Your task to perform on an android device: Go to accessibility settings Image 0: 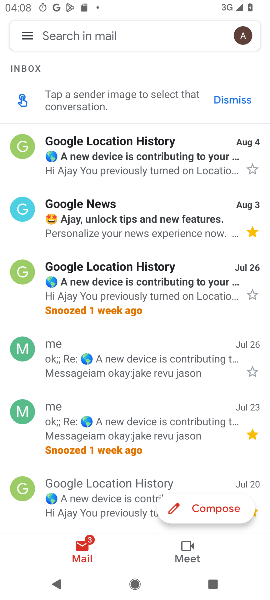
Step 0: press home button
Your task to perform on an android device: Go to accessibility settings Image 1: 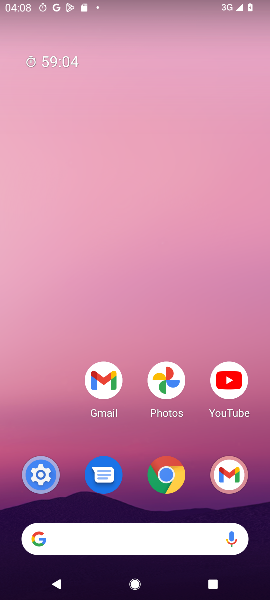
Step 1: drag from (55, 434) to (61, 255)
Your task to perform on an android device: Go to accessibility settings Image 2: 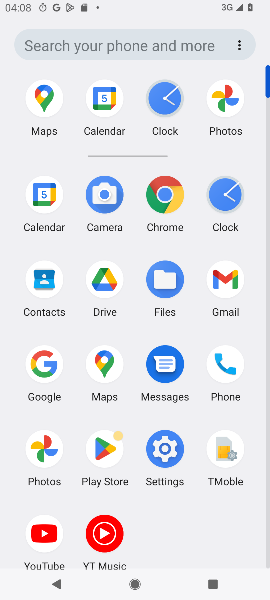
Step 2: click (165, 457)
Your task to perform on an android device: Go to accessibility settings Image 3: 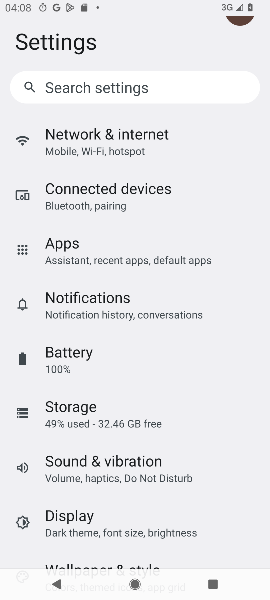
Step 3: drag from (232, 272) to (228, 415)
Your task to perform on an android device: Go to accessibility settings Image 4: 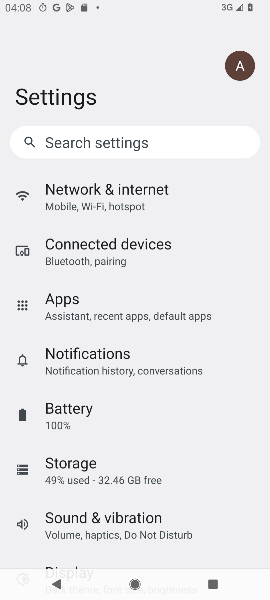
Step 4: drag from (225, 461) to (228, 365)
Your task to perform on an android device: Go to accessibility settings Image 5: 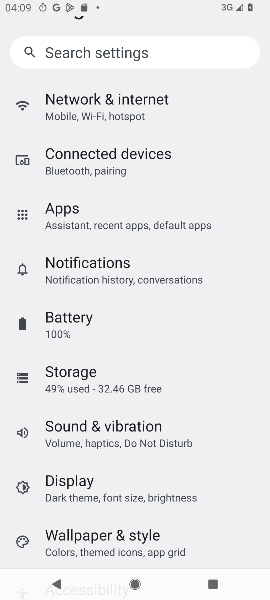
Step 5: drag from (232, 495) to (234, 404)
Your task to perform on an android device: Go to accessibility settings Image 6: 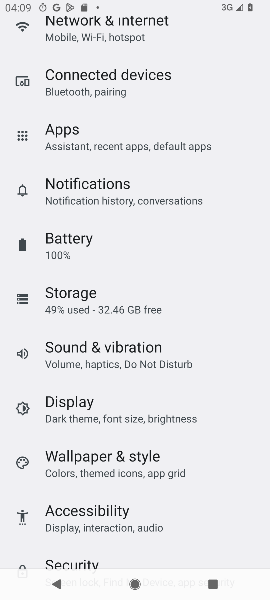
Step 6: drag from (225, 436) to (226, 338)
Your task to perform on an android device: Go to accessibility settings Image 7: 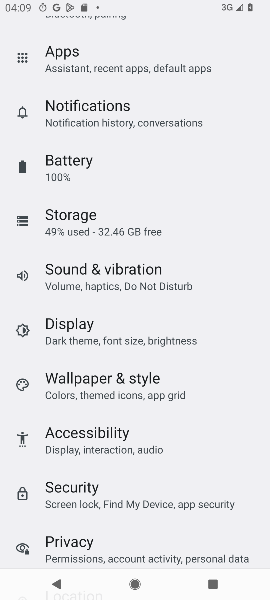
Step 7: drag from (213, 443) to (227, 347)
Your task to perform on an android device: Go to accessibility settings Image 8: 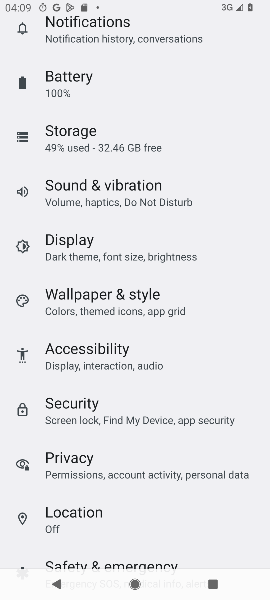
Step 8: drag from (222, 507) to (224, 366)
Your task to perform on an android device: Go to accessibility settings Image 9: 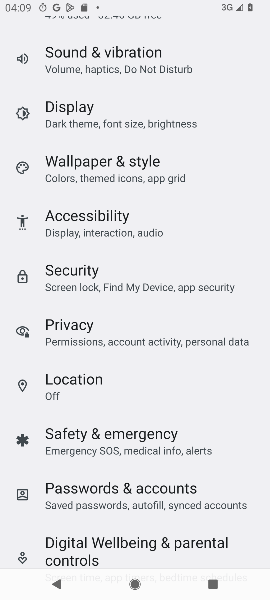
Step 9: click (156, 230)
Your task to perform on an android device: Go to accessibility settings Image 10: 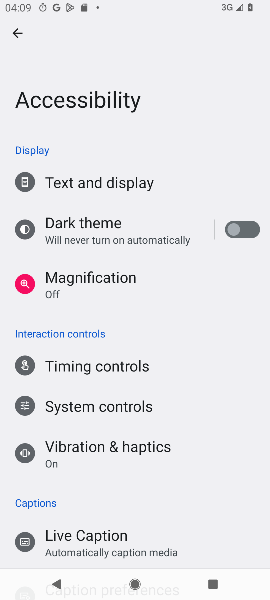
Step 10: task complete